Your task to perform on an android device: turn on location history Image 0: 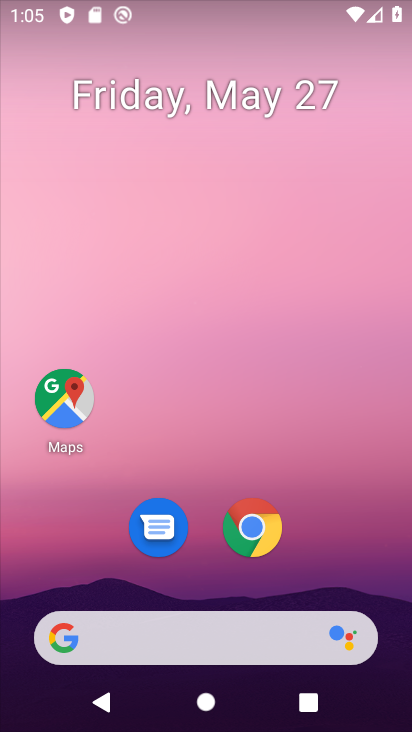
Step 0: drag from (392, 500) to (383, 219)
Your task to perform on an android device: turn on location history Image 1: 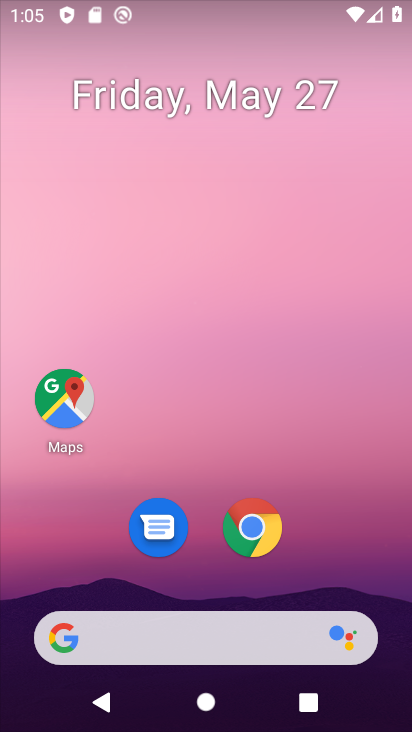
Step 1: drag from (359, 587) to (373, 78)
Your task to perform on an android device: turn on location history Image 2: 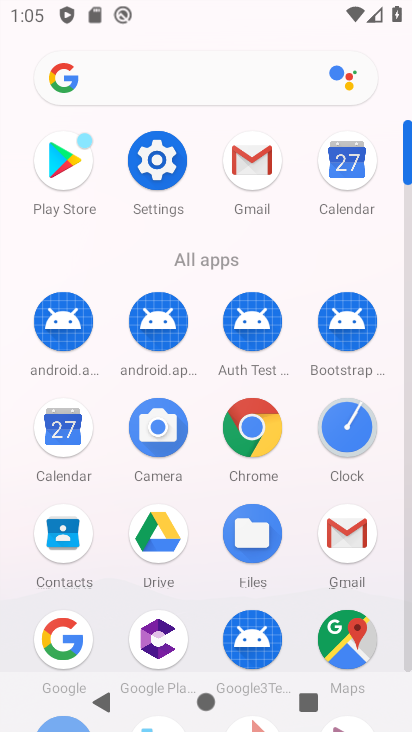
Step 2: click (175, 140)
Your task to perform on an android device: turn on location history Image 3: 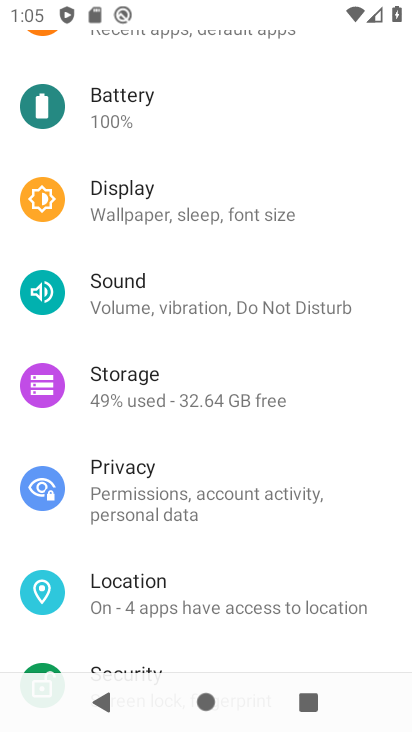
Step 3: click (93, 583)
Your task to perform on an android device: turn on location history Image 4: 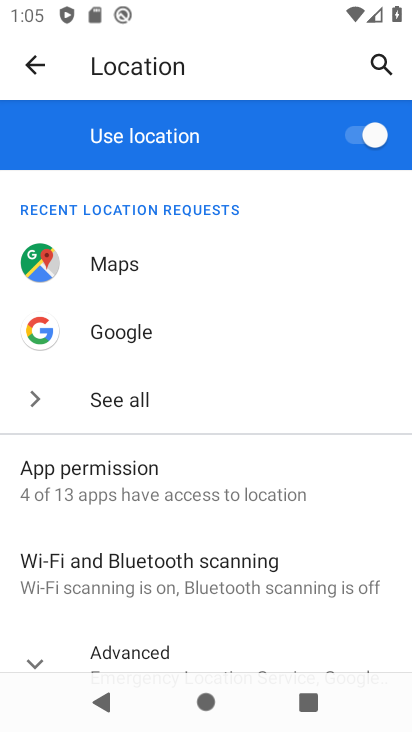
Step 4: click (164, 646)
Your task to perform on an android device: turn on location history Image 5: 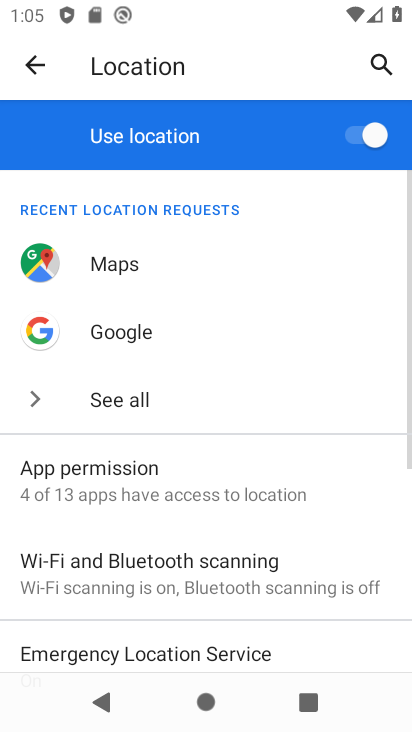
Step 5: drag from (163, 644) to (165, 370)
Your task to perform on an android device: turn on location history Image 6: 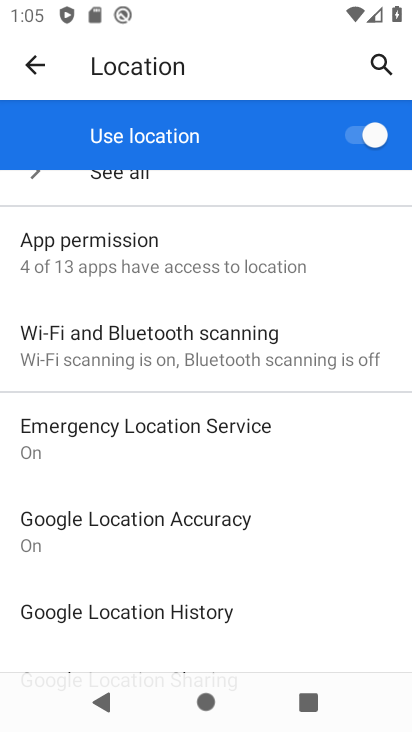
Step 6: click (209, 621)
Your task to perform on an android device: turn on location history Image 7: 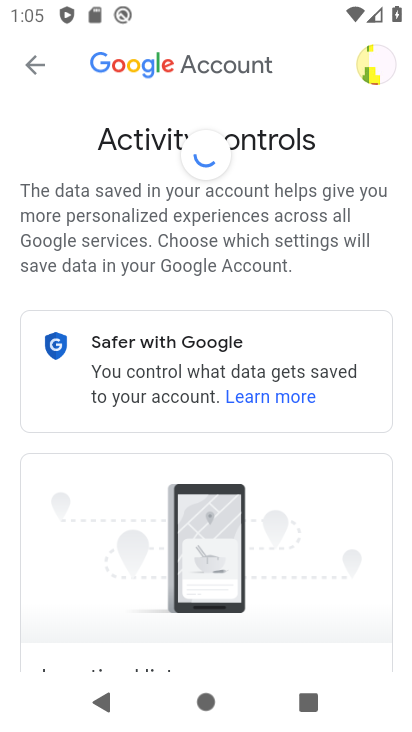
Step 7: drag from (268, 657) to (297, 350)
Your task to perform on an android device: turn on location history Image 8: 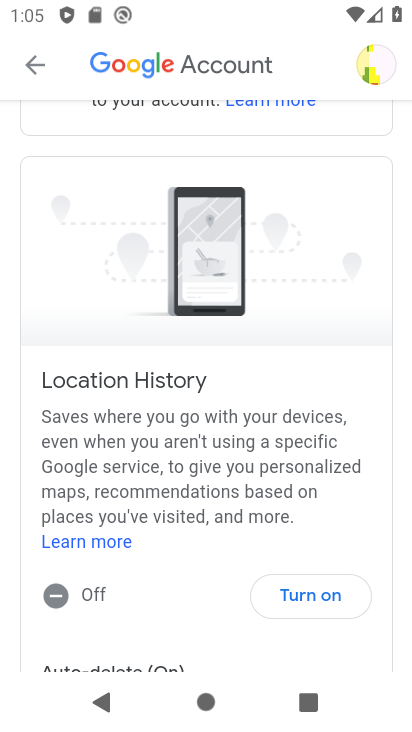
Step 8: click (307, 601)
Your task to perform on an android device: turn on location history Image 9: 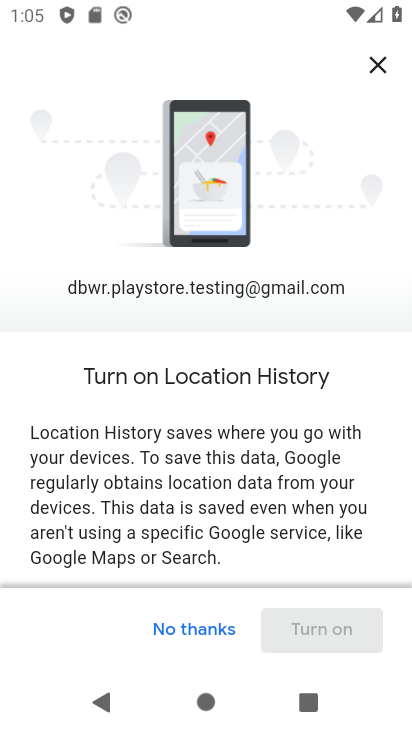
Step 9: drag from (301, 559) to (341, 9)
Your task to perform on an android device: turn on location history Image 10: 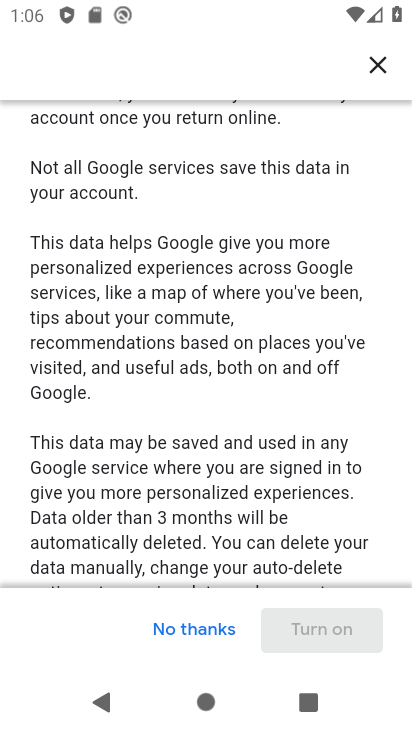
Step 10: drag from (309, 551) to (391, 42)
Your task to perform on an android device: turn on location history Image 11: 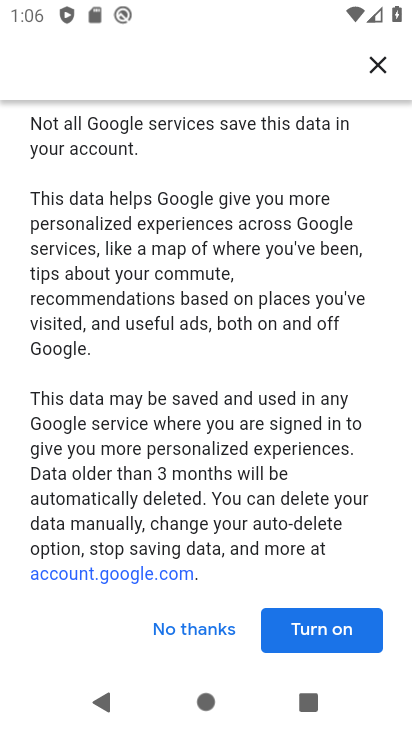
Step 11: click (345, 637)
Your task to perform on an android device: turn on location history Image 12: 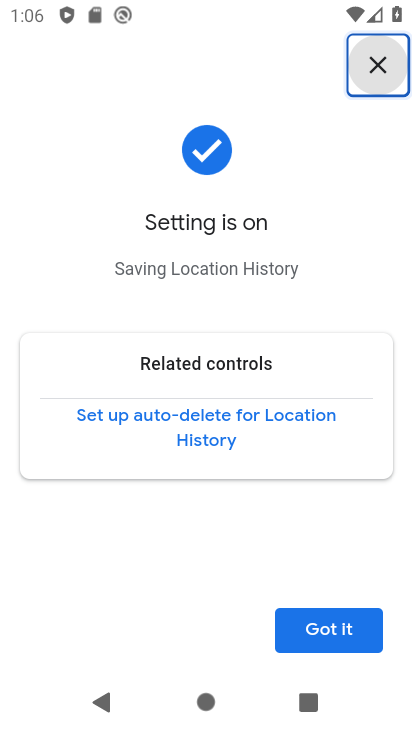
Step 12: click (338, 621)
Your task to perform on an android device: turn on location history Image 13: 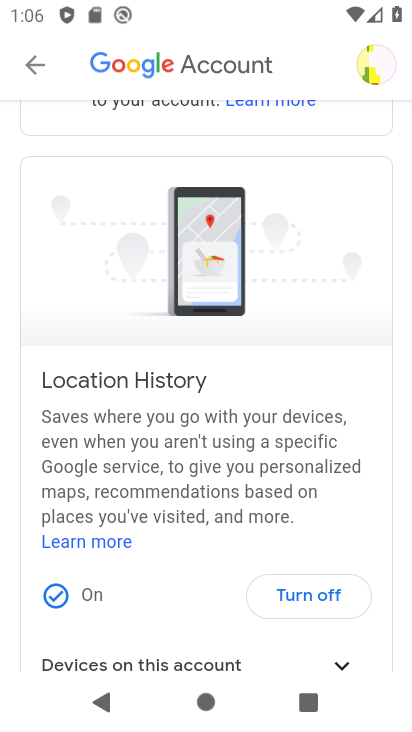
Step 13: task complete